Your task to perform on an android device: Add razer blade to the cart on walmart.com, then select checkout. Image 0: 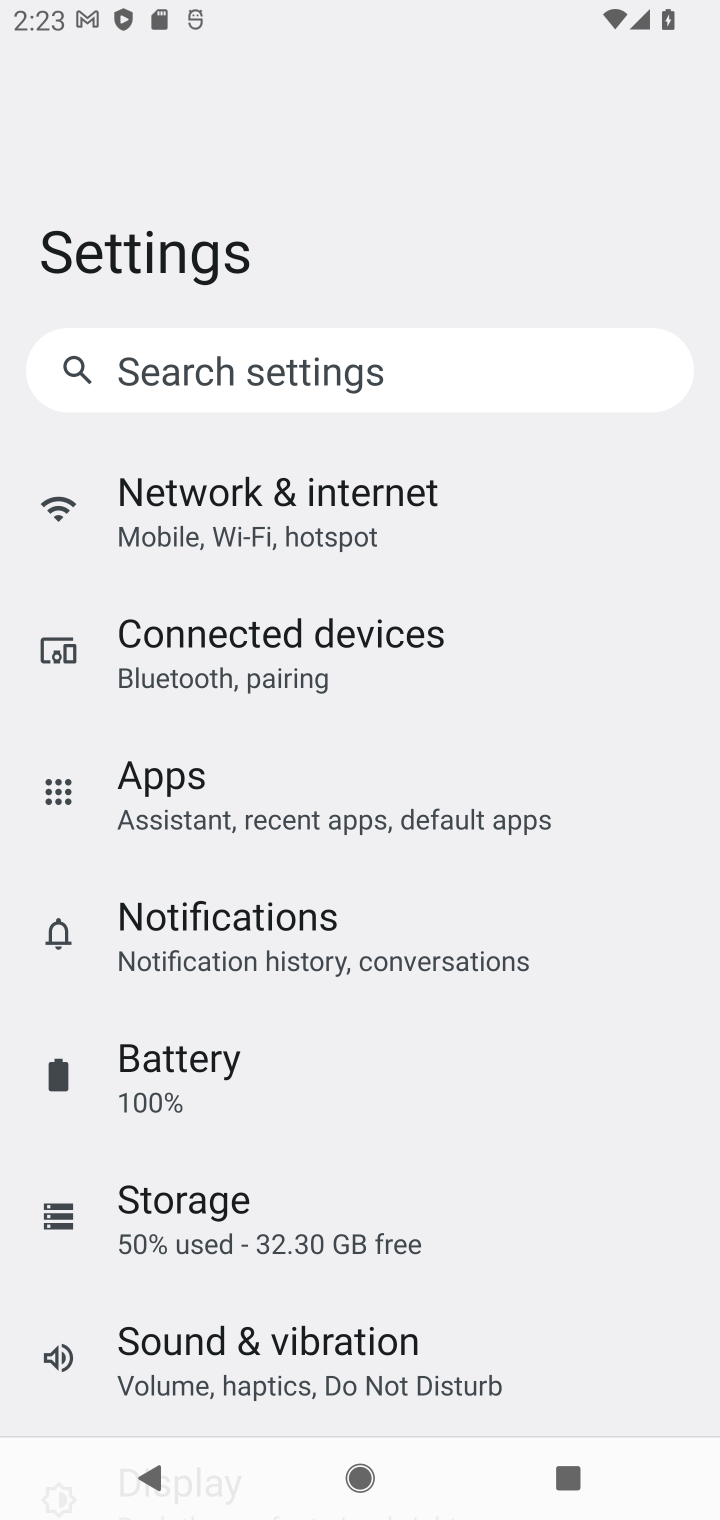
Step 0: press home button
Your task to perform on an android device: Add razer blade to the cart on walmart.com, then select checkout. Image 1: 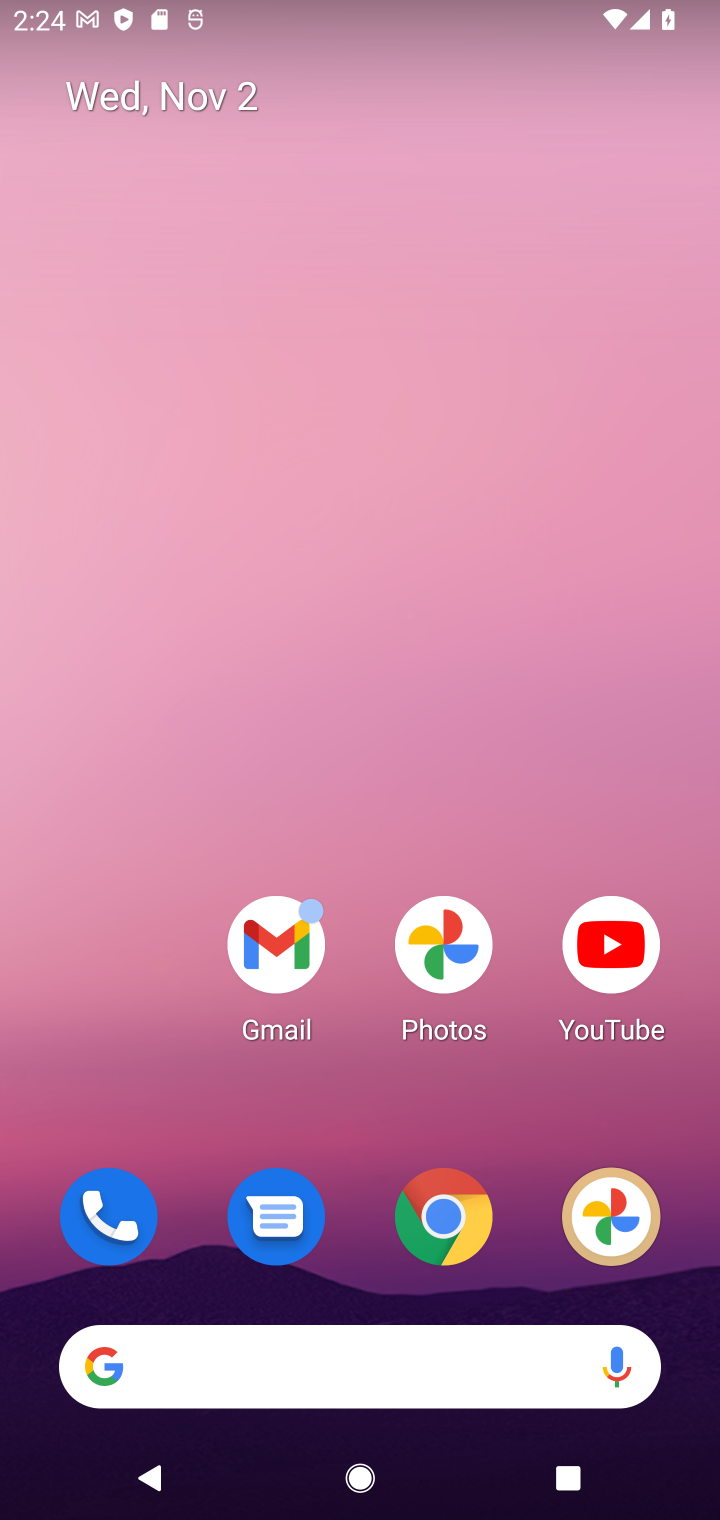
Step 1: click (435, 1209)
Your task to perform on an android device: Add razer blade to the cart on walmart.com, then select checkout. Image 2: 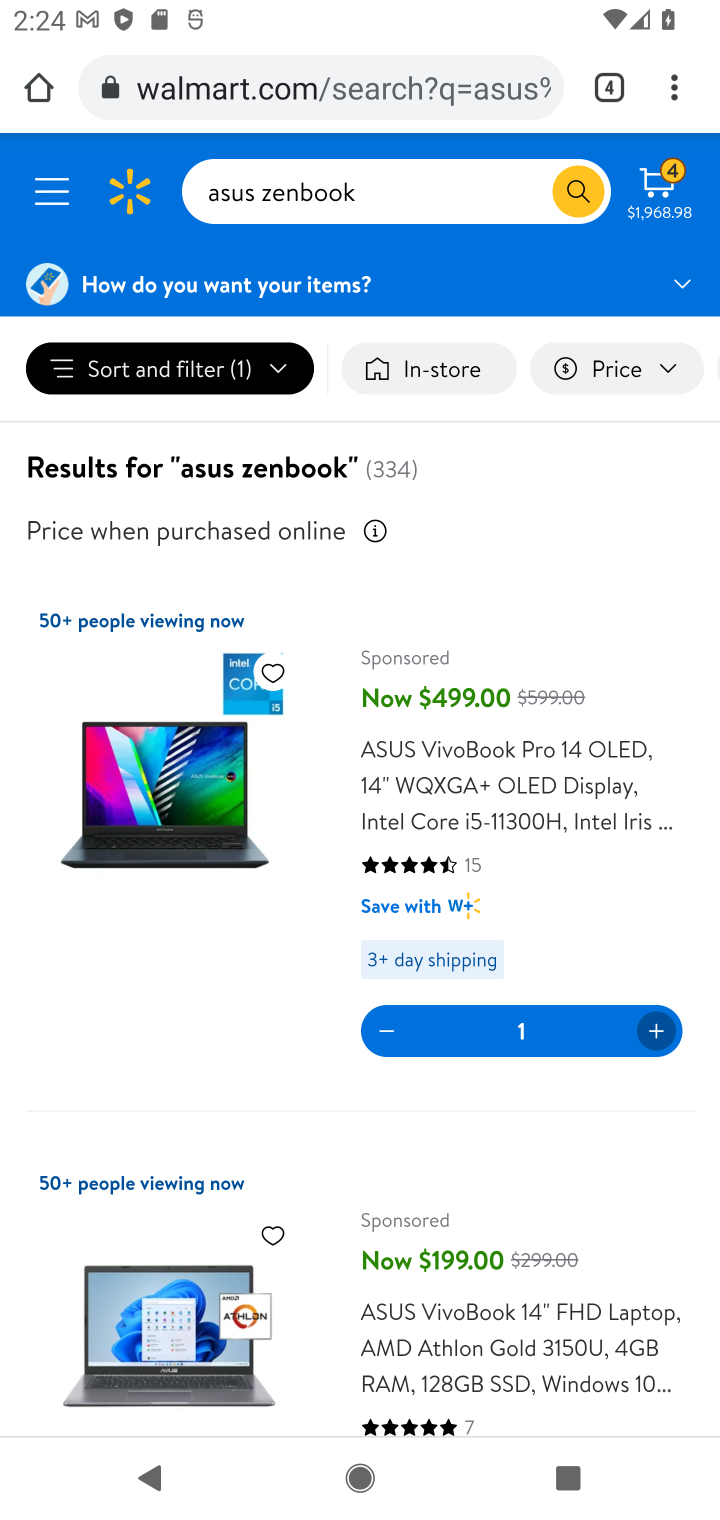
Step 2: click (358, 190)
Your task to perform on an android device: Add razer blade to the cart on walmart.com, then select checkout. Image 3: 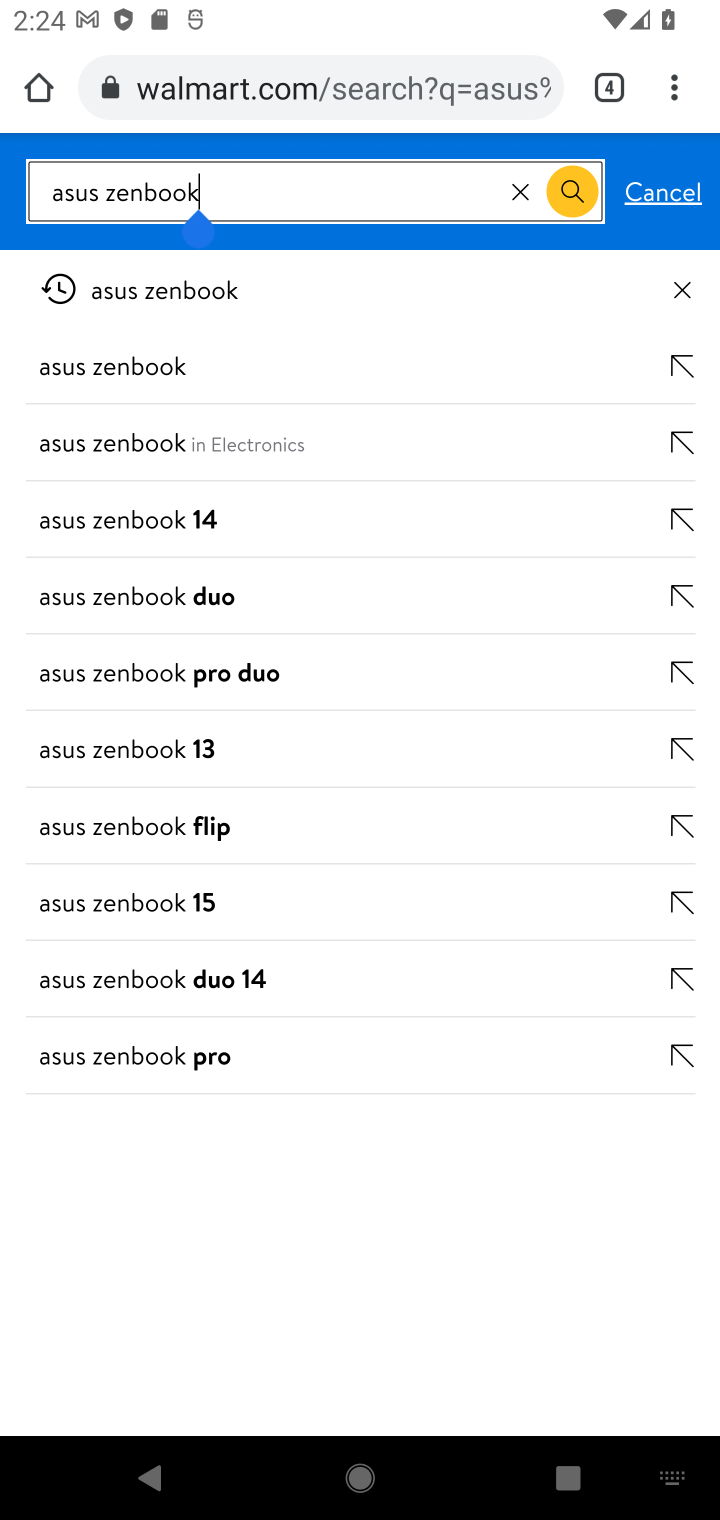
Step 3: click (515, 201)
Your task to perform on an android device: Add razer blade to the cart on walmart.com, then select checkout. Image 4: 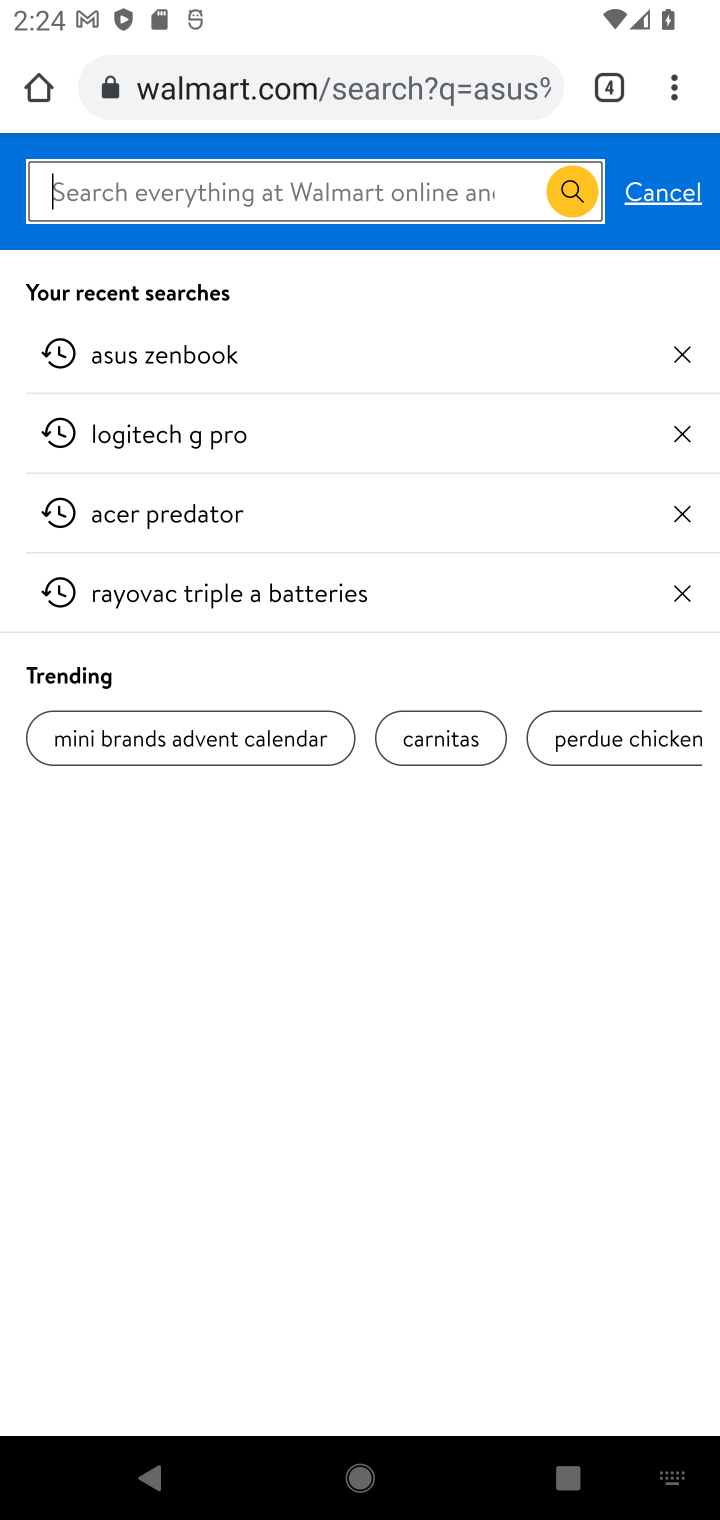
Step 4: type "razer blade"
Your task to perform on an android device: Add razer blade to the cart on walmart.com, then select checkout. Image 5: 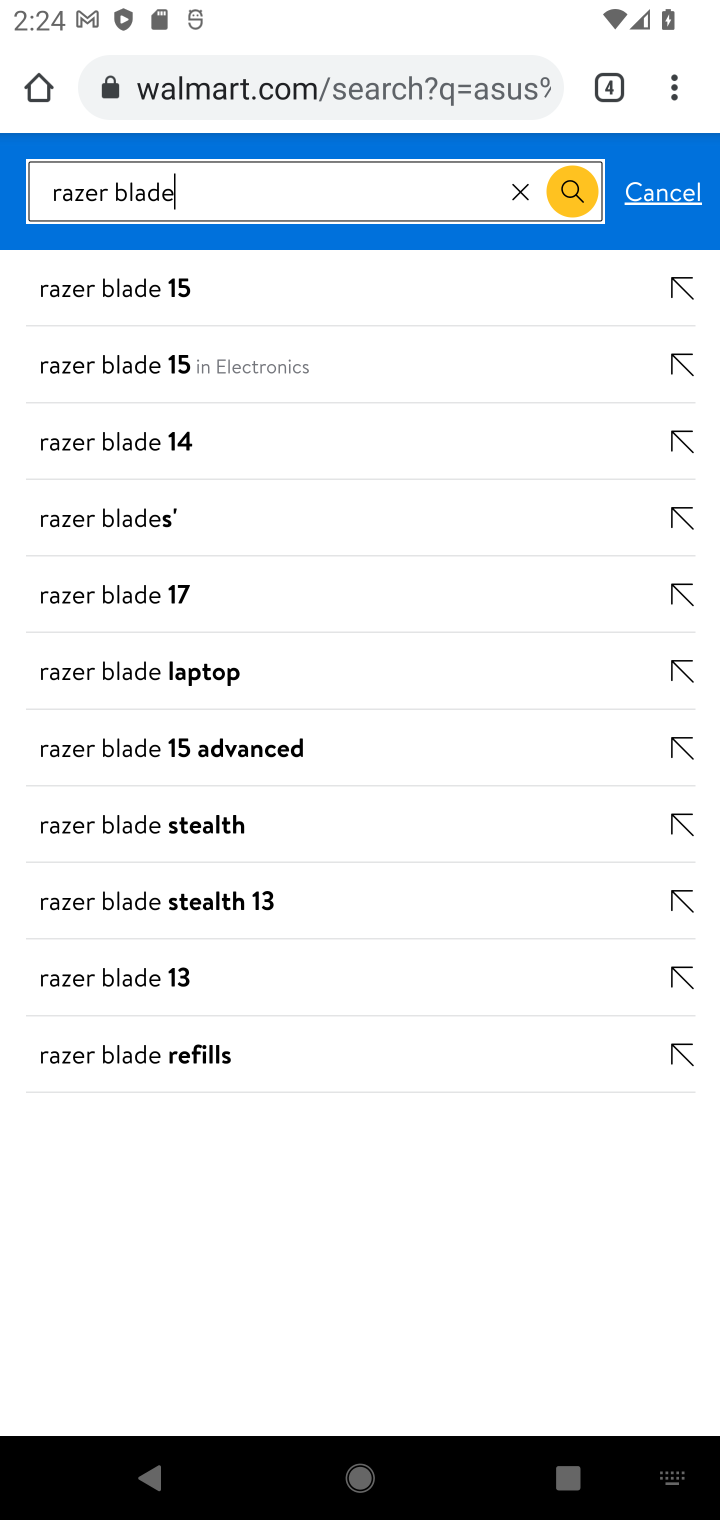
Step 5: click (245, 373)
Your task to perform on an android device: Add razer blade to the cart on walmart.com, then select checkout. Image 6: 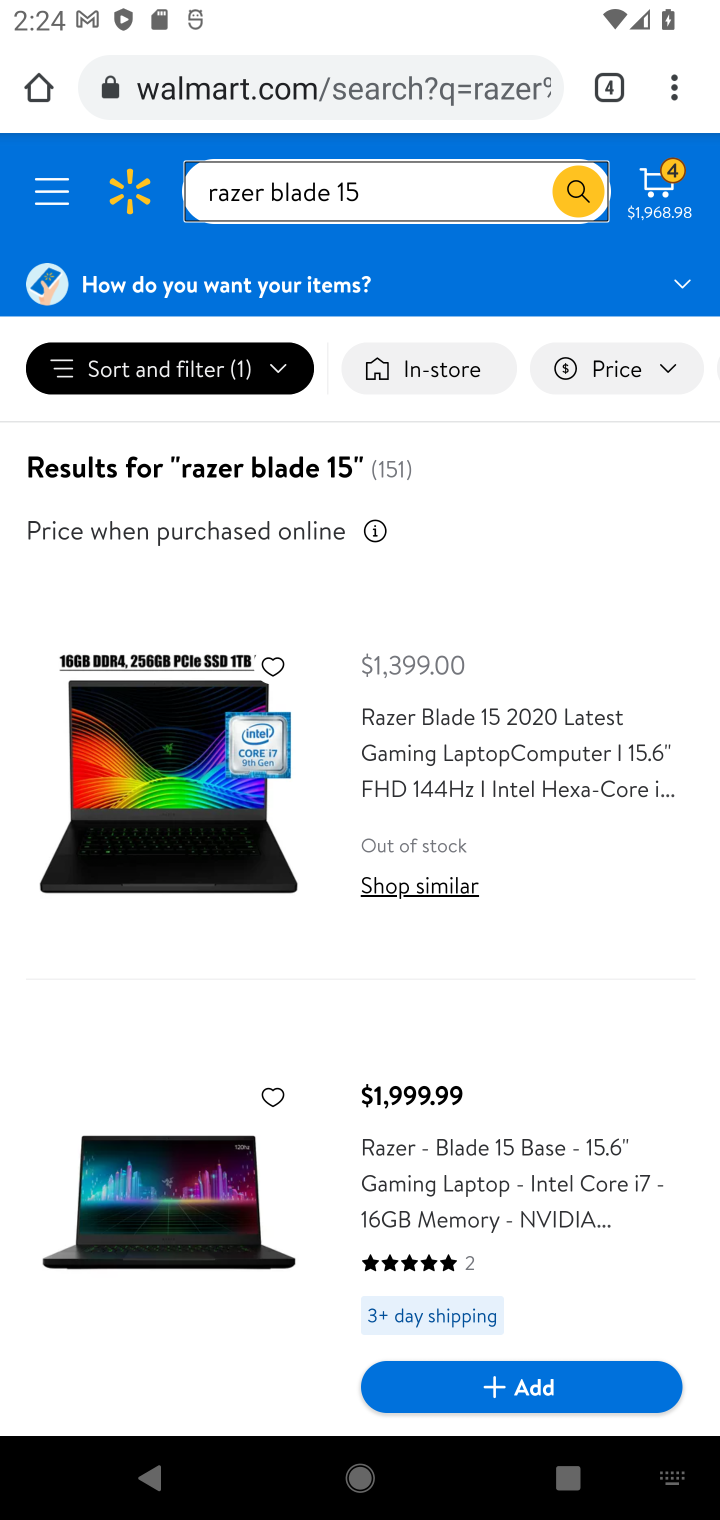
Step 6: click (561, 1394)
Your task to perform on an android device: Add razer blade to the cart on walmart.com, then select checkout. Image 7: 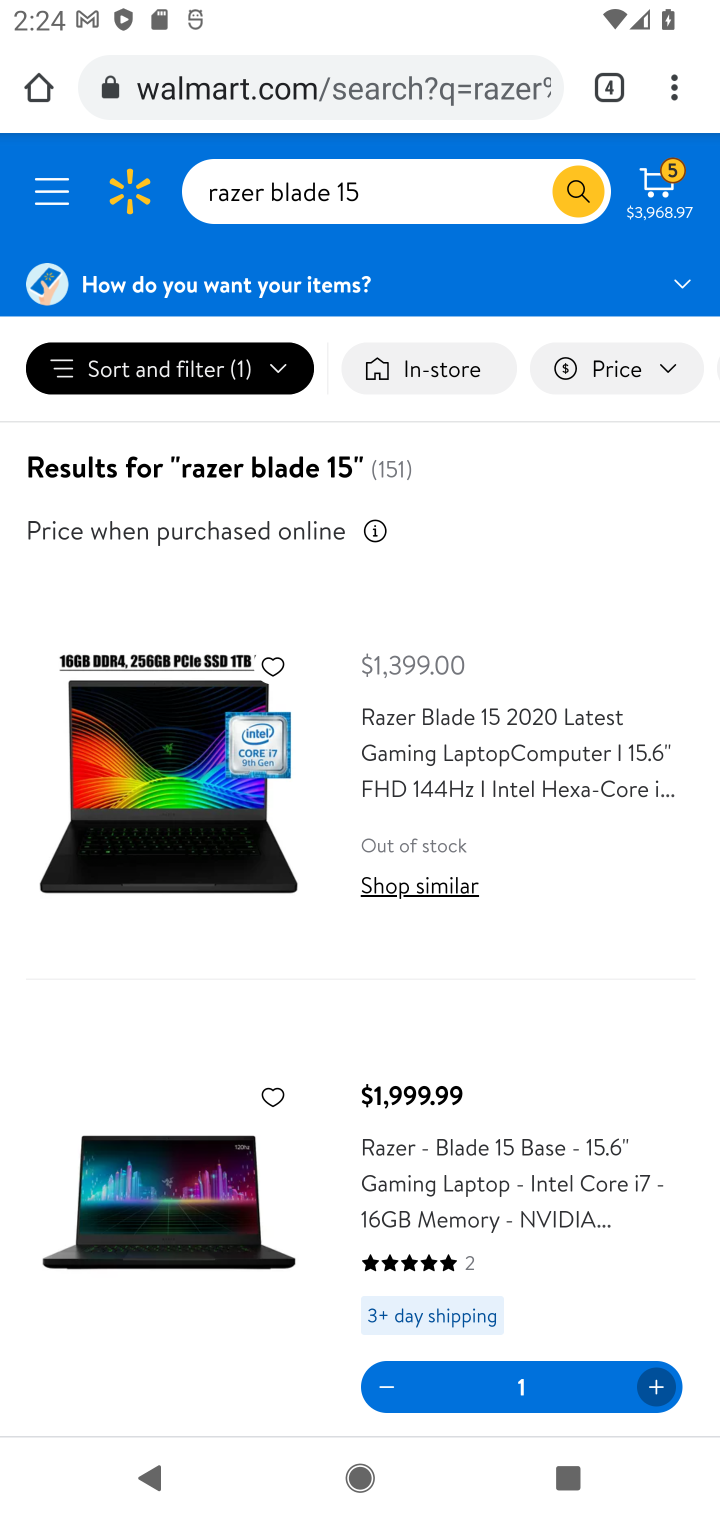
Step 7: task complete